Your task to perform on an android device: open the mobile data screen to see how much data has been used Image 0: 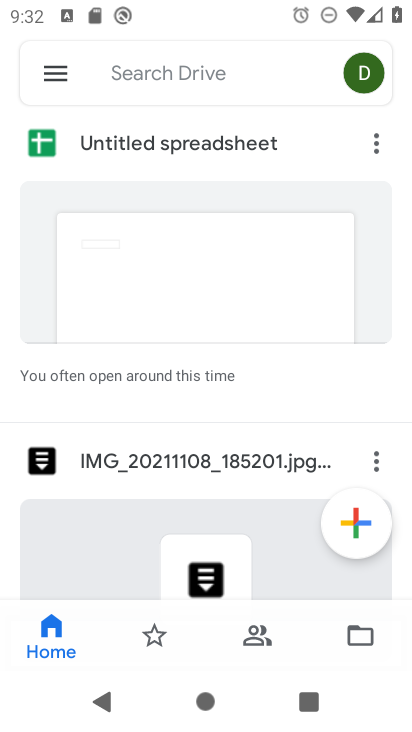
Step 0: press home button
Your task to perform on an android device: open the mobile data screen to see how much data has been used Image 1: 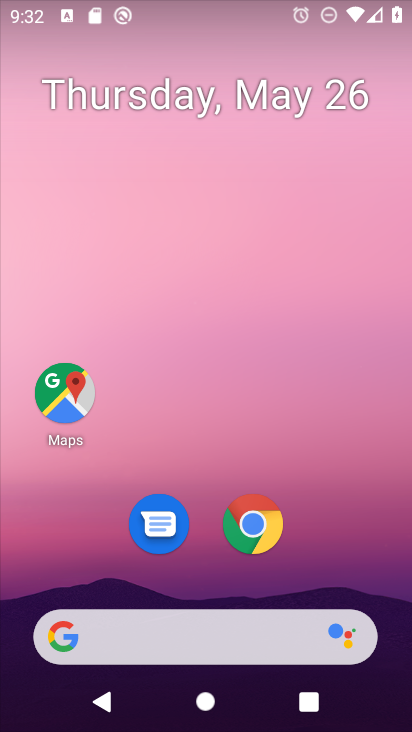
Step 1: drag from (212, 424) to (221, 34)
Your task to perform on an android device: open the mobile data screen to see how much data has been used Image 2: 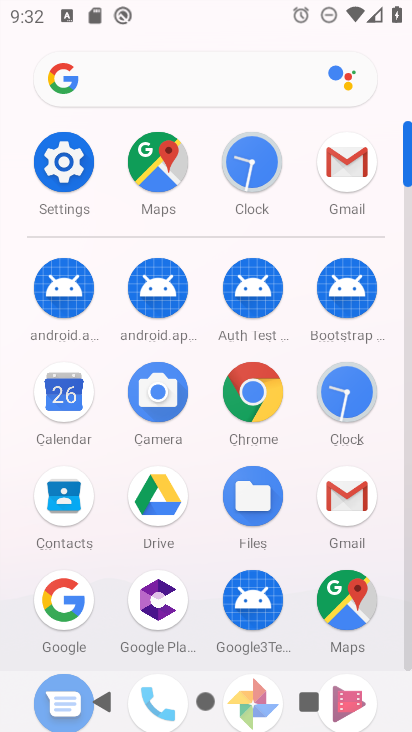
Step 2: click (74, 167)
Your task to perform on an android device: open the mobile data screen to see how much data has been used Image 3: 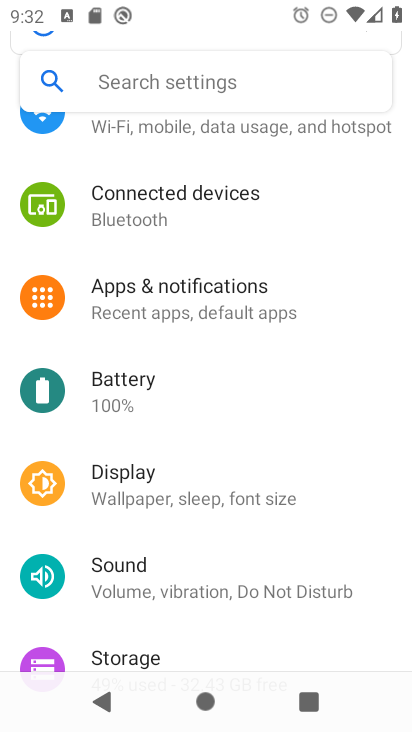
Step 3: drag from (212, 245) to (193, 580)
Your task to perform on an android device: open the mobile data screen to see how much data has been used Image 4: 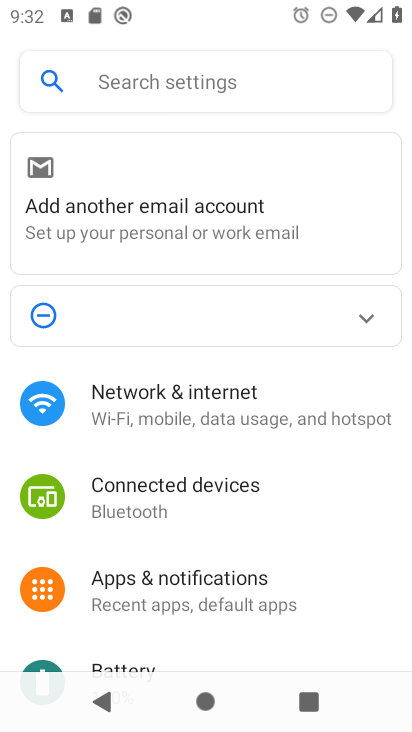
Step 4: drag from (221, 518) to (260, 280)
Your task to perform on an android device: open the mobile data screen to see how much data has been used Image 5: 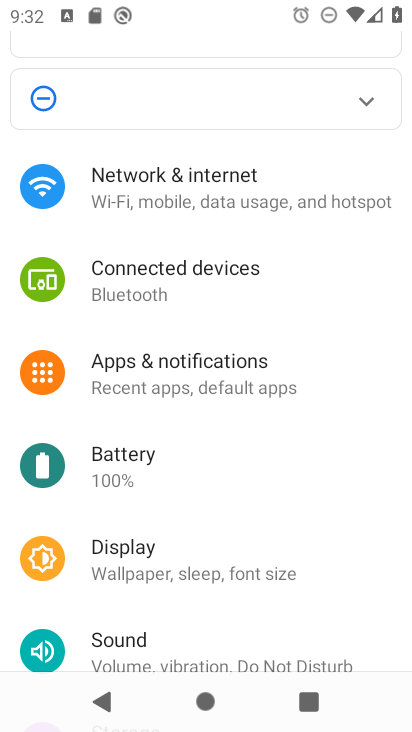
Step 5: click (262, 188)
Your task to perform on an android device: open the mobile data screen to see how much data has been used Image 6: 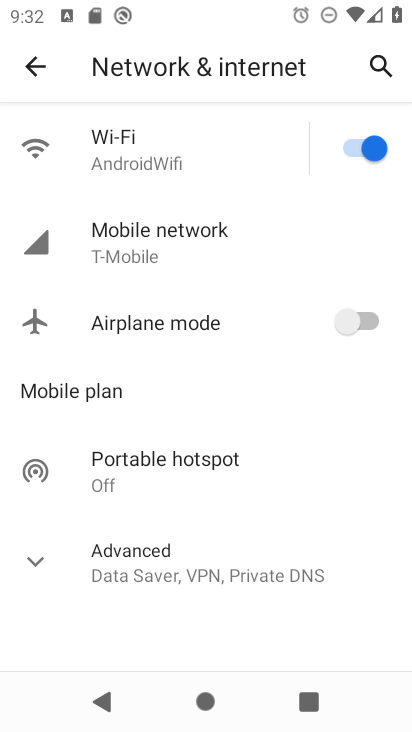
Step 6: click (259, 234)
Your task to perform on an android device: open the mobile data screen to see how much data has been used Image 7: 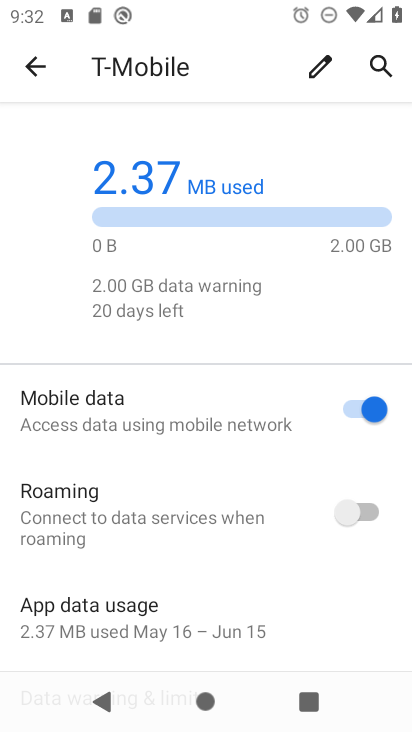
Step 7: task complete